Your task to perform on an android device: change your default location settings in chrome Image 0: 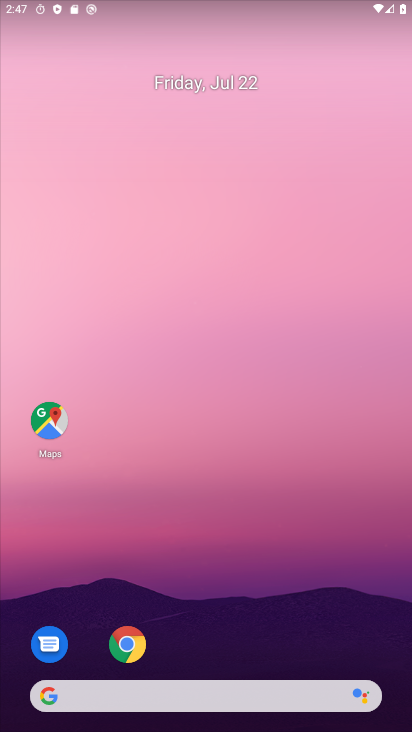
Step 0: press home button
Your task to perform on an android device: change your default location settings in chrome Image 1: 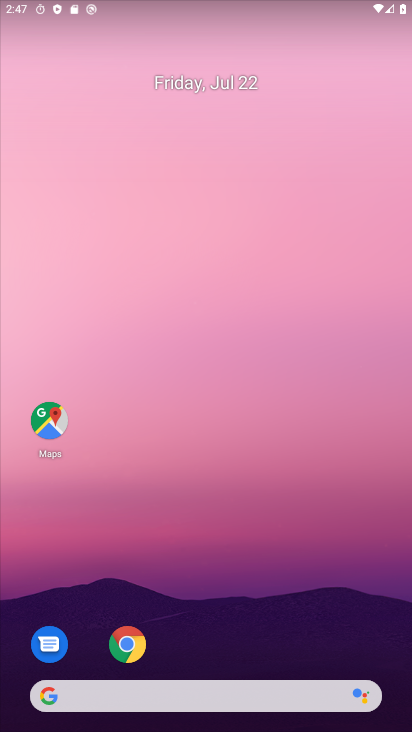
Step 1: drag from (258, 635) to (206, 106)
Your task to perform on an android device: change your default location settings in chrome Image 2: 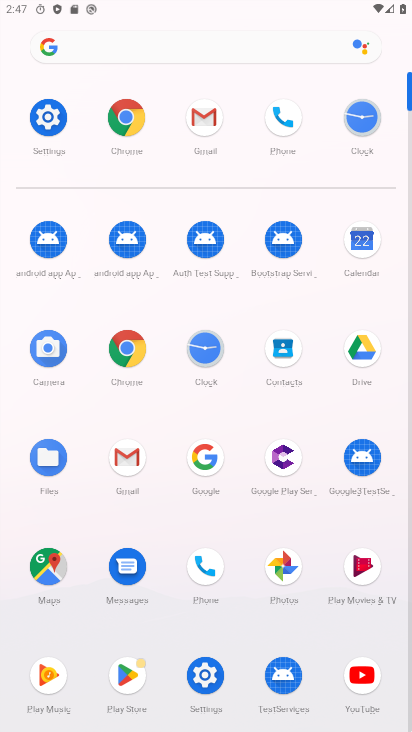
Step 2: click (135, 104)
Your task to perform on an android device: change your default location settings in chrome Image 3: 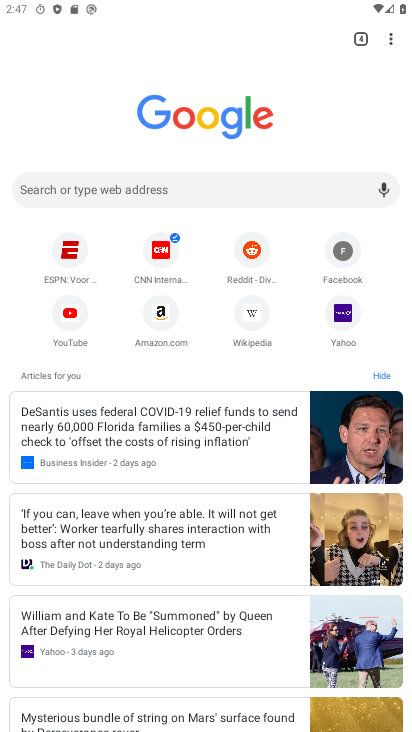
Step 3: drag from (391, 34) to (263, 369)
Your task to perform on an android device: change your default location settings in chrome Image 4: 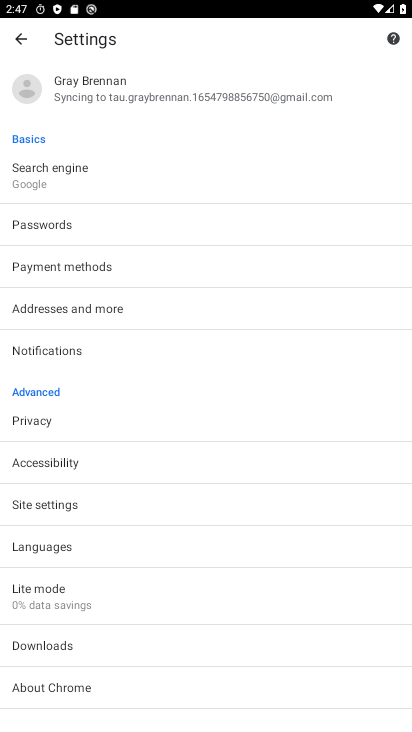
Step 4: click (41, 505)
Your task to perform on an android device: change your default location settings in chrome Image 5: 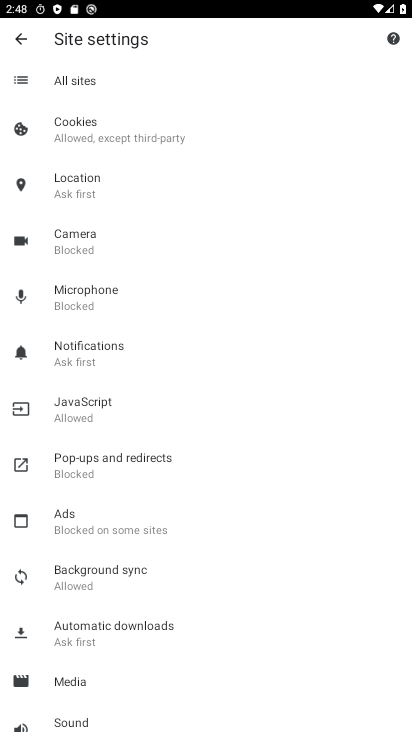
Step 5: click (59, 177)
Your task to perform on an android device: change your default location settings in chrome Image 6: 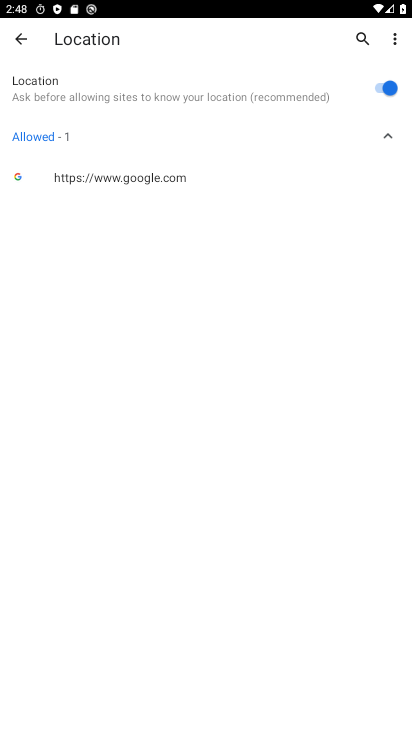
Step 6: click (394, 94)
Your task to perform on an android device: change your default location settings in chrome Image 7: 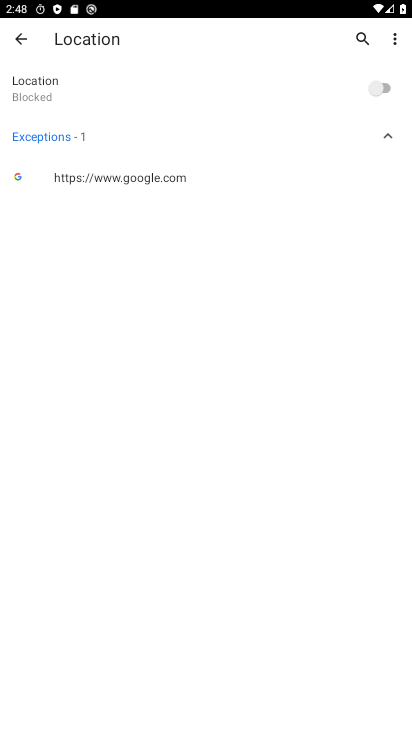
Step 7: task complete